Your task to perform on an android device: turn on airplane mode Image 0: 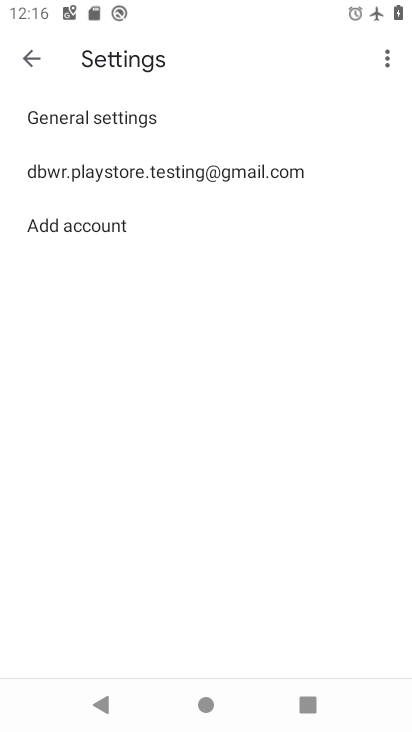
Step 0: press home button
Your task to perform on an android device: turn on airplane mode Image 1: 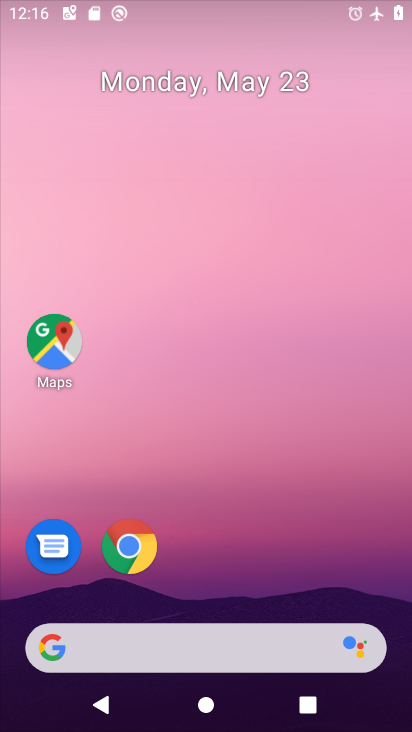
Step 1: drag from (240, 611) to (378, 9)
Your task to perform on an android device: turn on airplane mode Image 2: 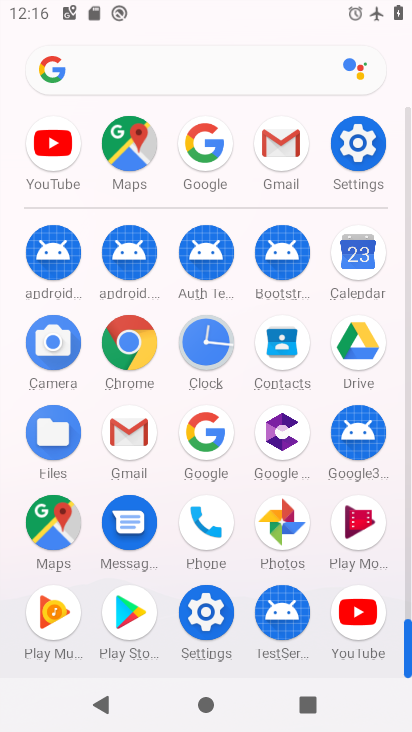
Step 2: click (347, 169)
Your task to perform on an android device: turn on airplane mode Image 3: 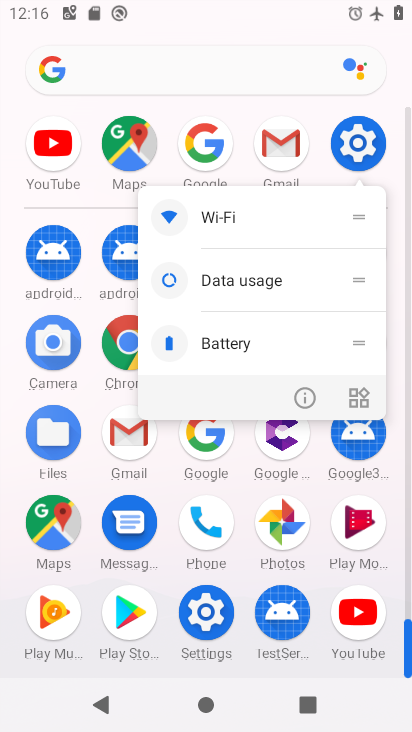
Step 3: click (348, 169)
Your task to perform on an android device: turn on airplane mode Image 4: 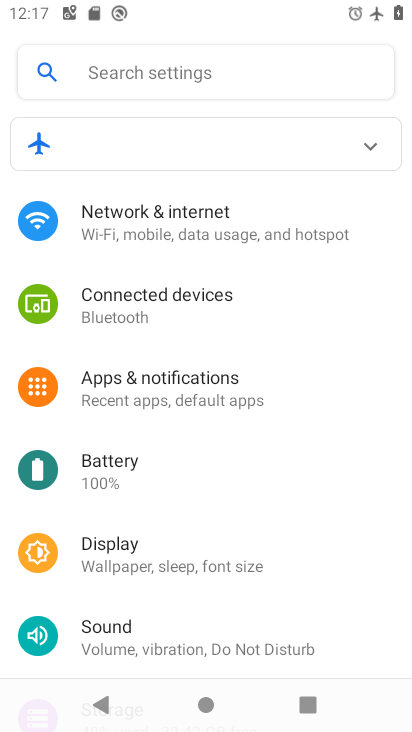
Step 4: click (279, 211)
Your task to perform on an android device: turn on airplane mode Image 5: 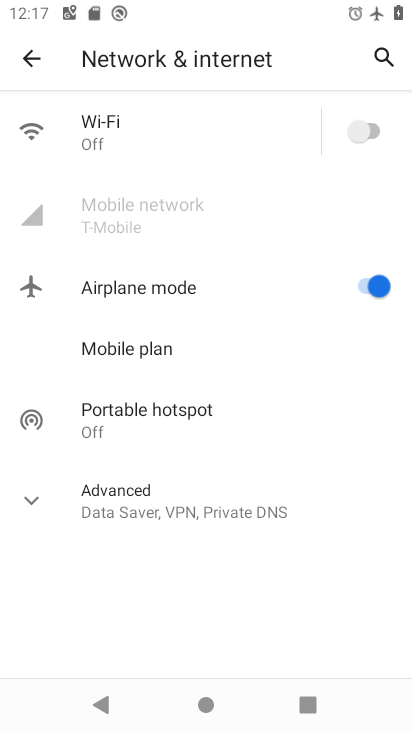
Step 5: task complete